Your task to perform on an android device: Go to Yahoo.com Image 0: 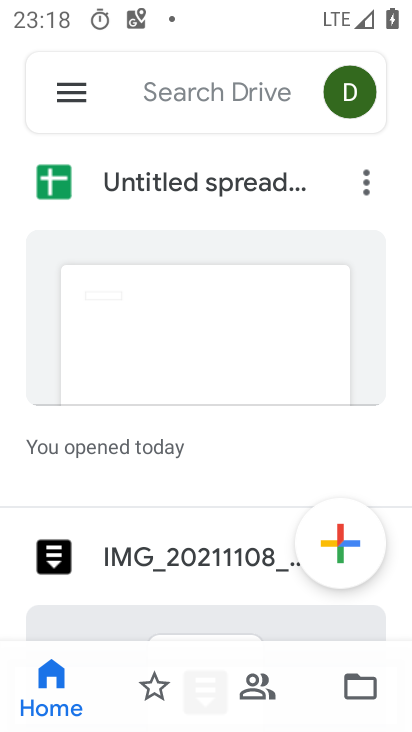
Step 0: press home button
Your task to perform on an android device: Go to Yahoo.com Image 1: 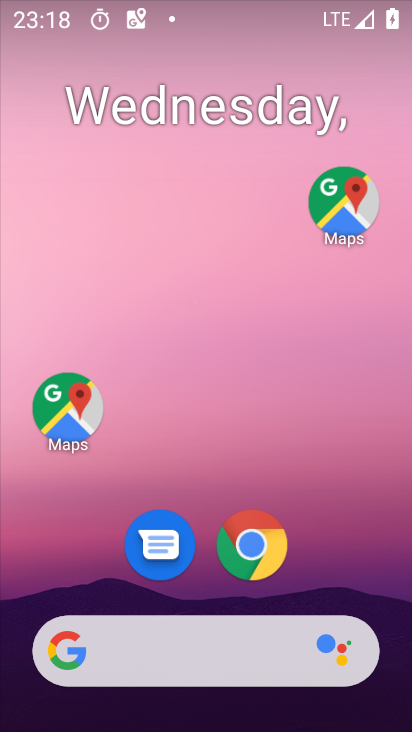
Step 1: click (239, 546)
Your task to perform on an android device: Go to Yahoo.com Image 2: 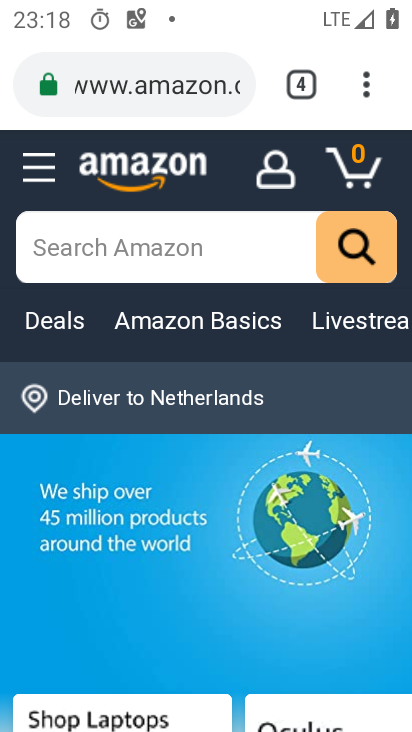
Step 2: click (174, 81)
Your task to perform on an android device: Go to Yahoo.com Image 3: 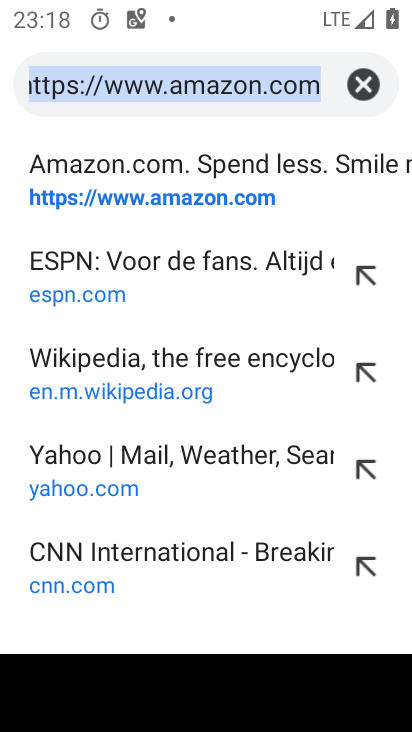
Step 3: type "yahoo.com"
Your task to perform on an android device: Go to Yahoo.com Image 4: 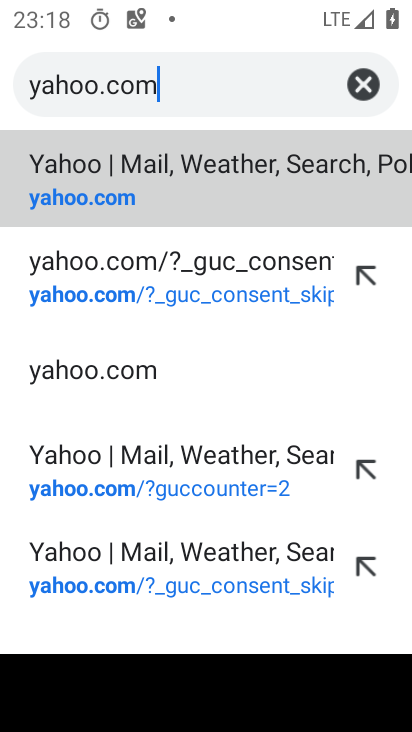
Step 4: click (145, 189)
Your task to perform on an android device: Go to Yahoo.com Image 5: 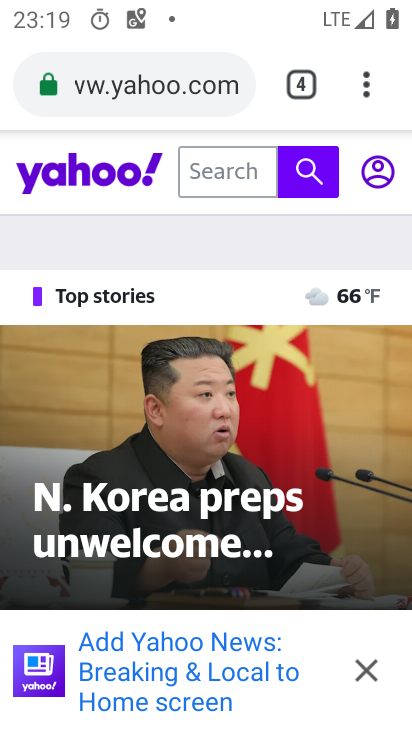
Step 5: task complete